Your task to perform on an android device: turn on sleep mode Image 0: 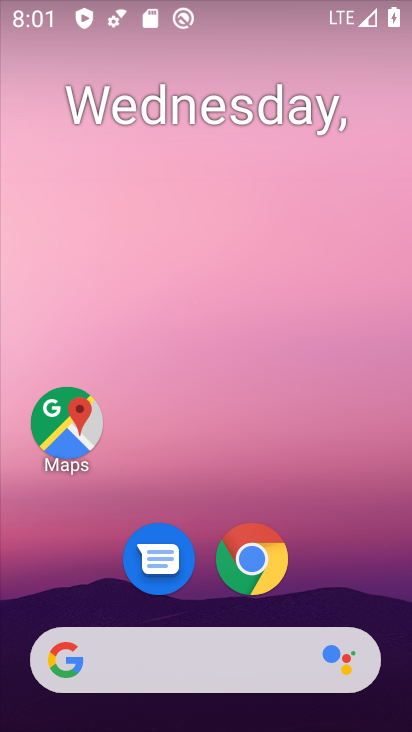
Step 0: drag from (205, 588) to (220, 152)
Your task to perform on an android device: turn on sleep mode Image 1: 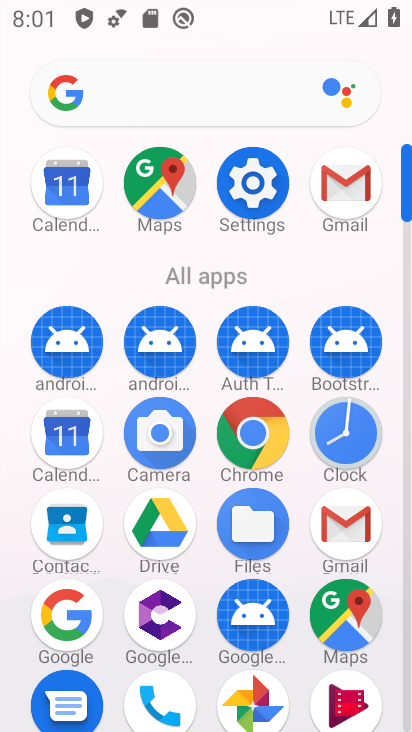
Step 1: click (261, 178)
Your task to perform on an android device: turn on sleep mode Image 2: 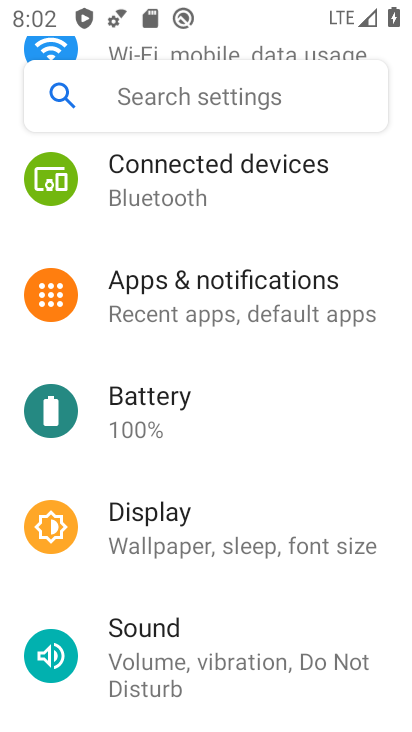
Step 2: click (236, 105)
Your task to perform on an android device: turn on sleep mode Image 3: 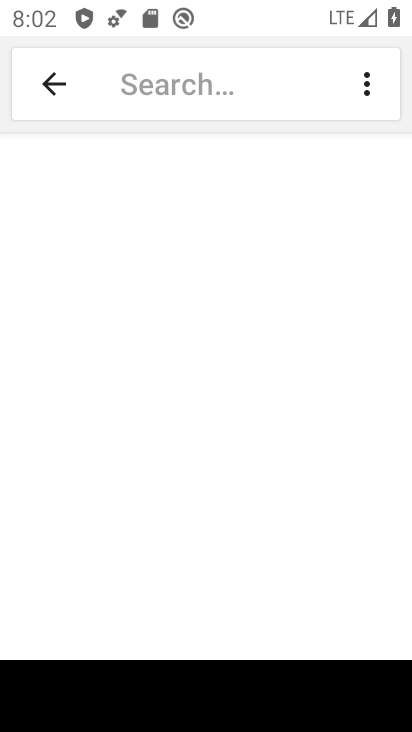
Step 3: type "sleep mode"
Your task to perform on an android device: turn on sleep mode Image 4: 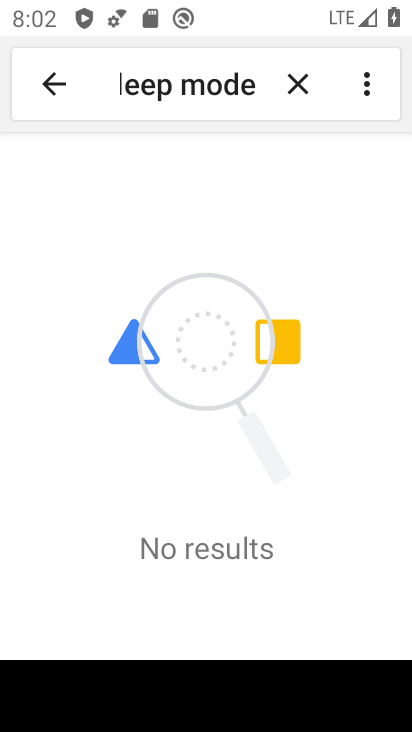
Step 4: task complete